Your task to perform on an android device: change the clock display to show seconds Image 0: 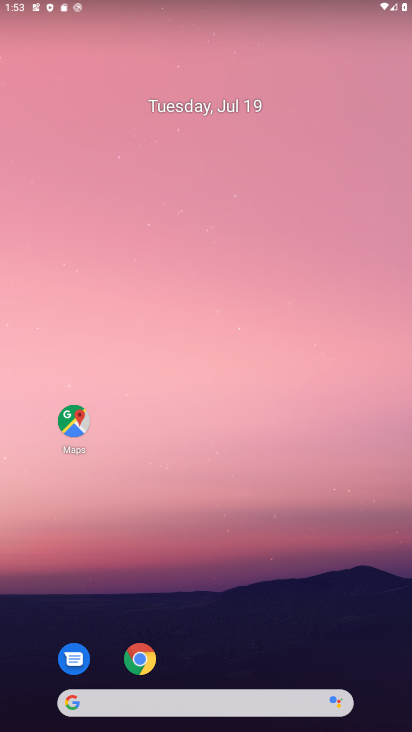
Step 0: press home button
Your task to perform on an android device: change the clock display to show seconds Image 1: 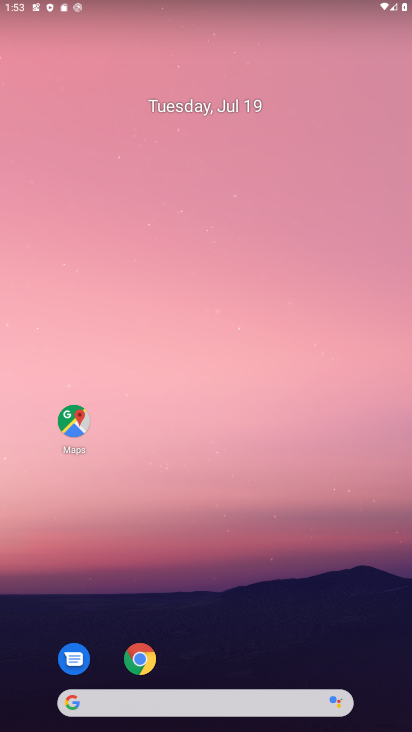
Step 1: drag from (241, 669) to (386, 3)
Your task to perform on an android device: change the clock display to show seconds Image 2: 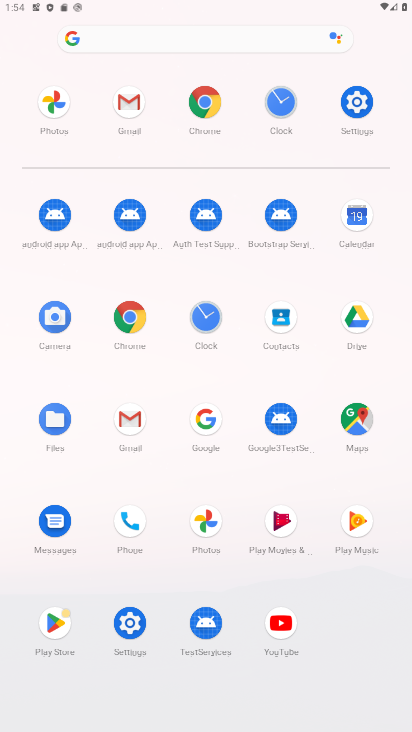
Step 2: click (225, 323)
Your task to perform on an android device: change the clock display to show seconds Image 3: 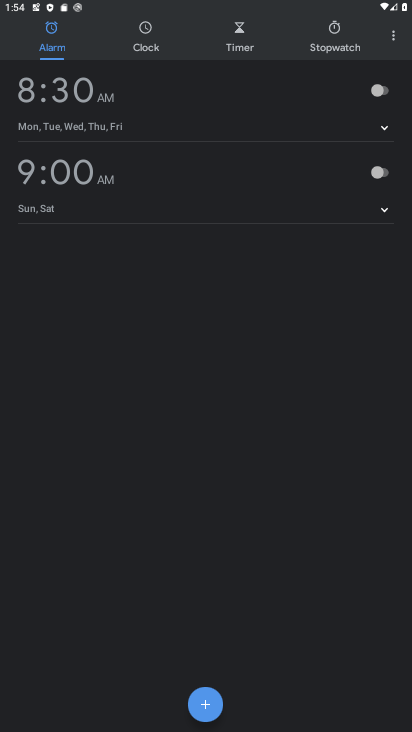
Step 3: click (392, 57)
Your task to perform on an android device: change the clock display to show seconds Image 4: 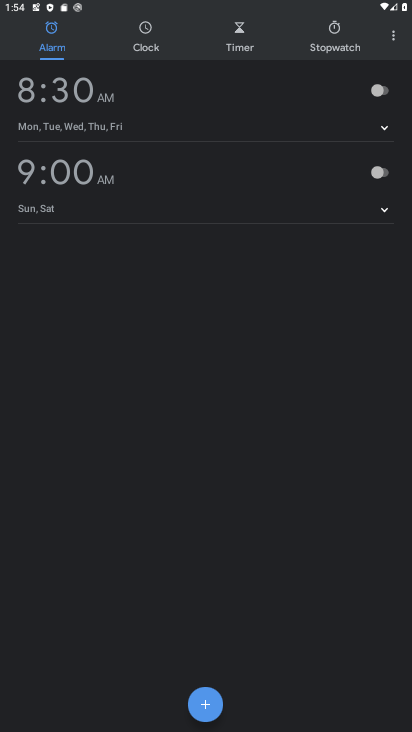
Step 4: click (392, 50)
Your task to perform on an android device: change the clock display to show seconds Image 5: 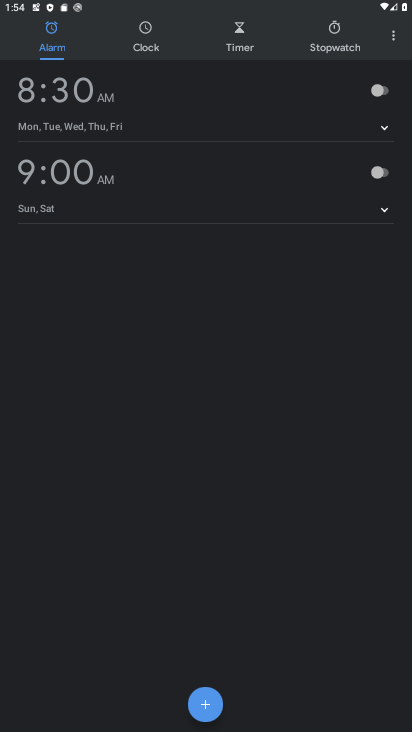
Step 5: click (405, 33)
Your task to perform on an android device: change the clock display to show seconds Image 6: 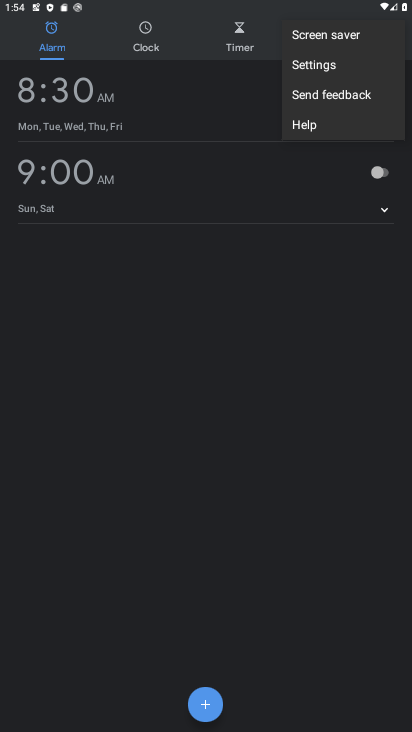
Step 6: click (328, 69)
Your task to perform on an android device: change the clock display to show seconds Image 7: 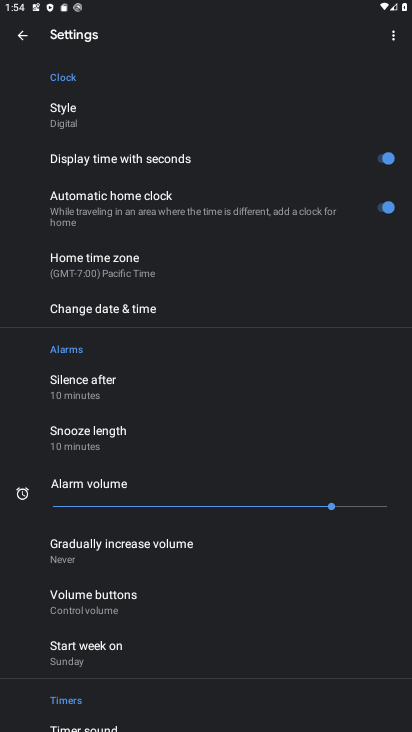
Step 7: task complete